Your task to perform on an android device: turn off smart reply in the gmail app Image 0: 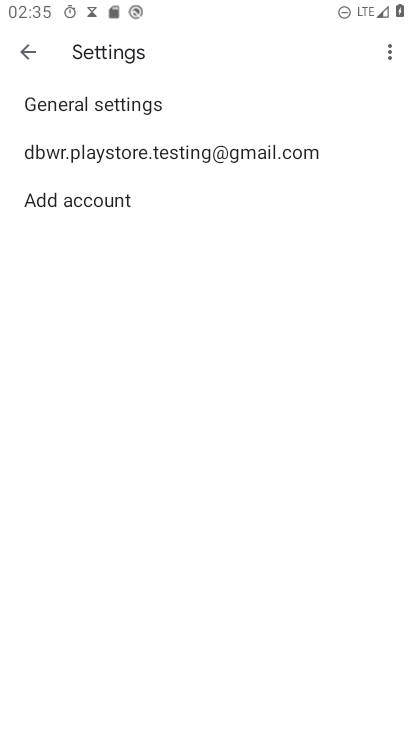
Step 0: press home button
Your task to perform on an android device: turn off smart reply in the gmail app Image 1: 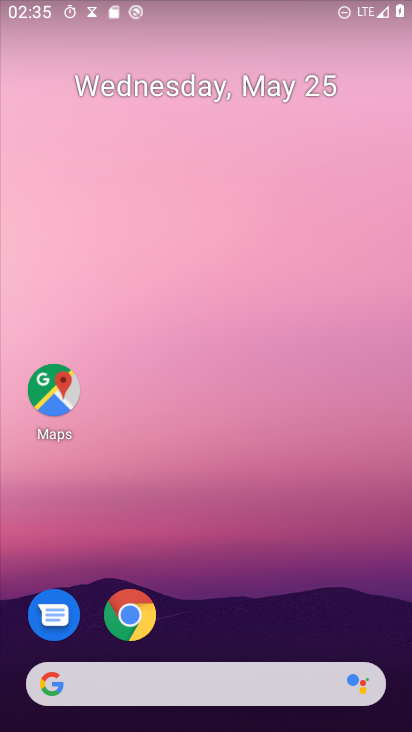
Step 1: drag from (303, 684) to (316, 91)
Your task to perform on an android device: turn off smart reply in the gmail app Image 2: 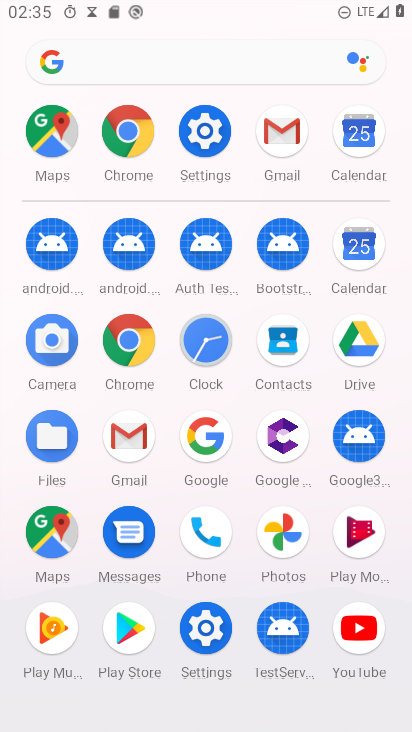
Step 2: click (274, 141)
Your task to perform on an android device: turn off smart reply in the gmail app Image 3: 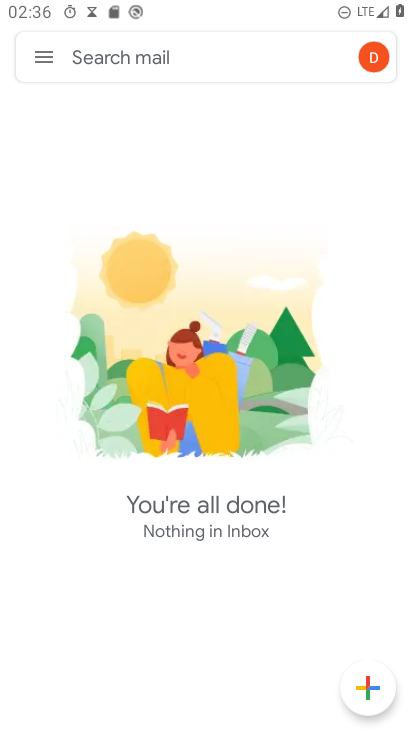
Step 3: click (37, 68)
Your task to perform on an android device: turn off smart reply in the gmail app Image 4: 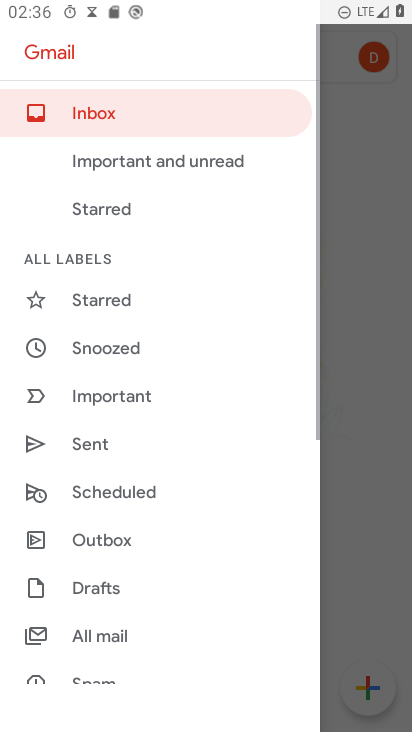
Step 4: drag from (139, 605) to (181, 228)
Your task to perform on an android device: turn off smart reply in the gmail app Image 5: 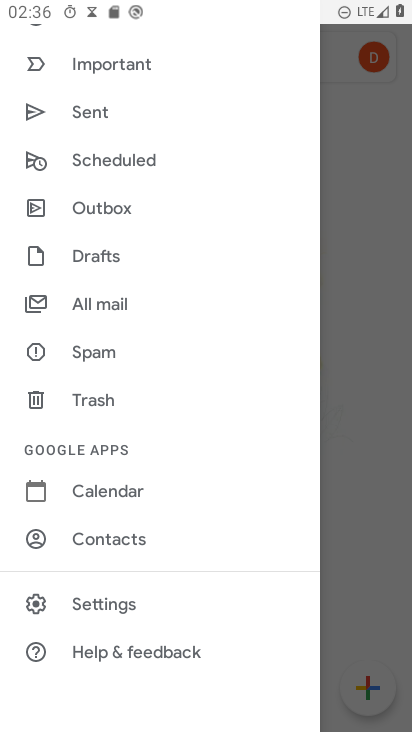
Step 5: click (146, 608)
Your task to perform on an android device: turn off smart reply in the gmail app Image 6: 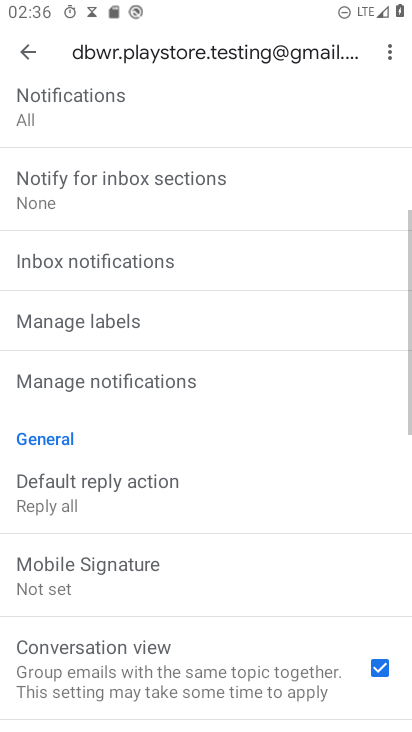
Step 6: drag from (197, 498) to (214, 155)
Your task to perform on an android device: turn off smart reply in the gmail app Image 7: 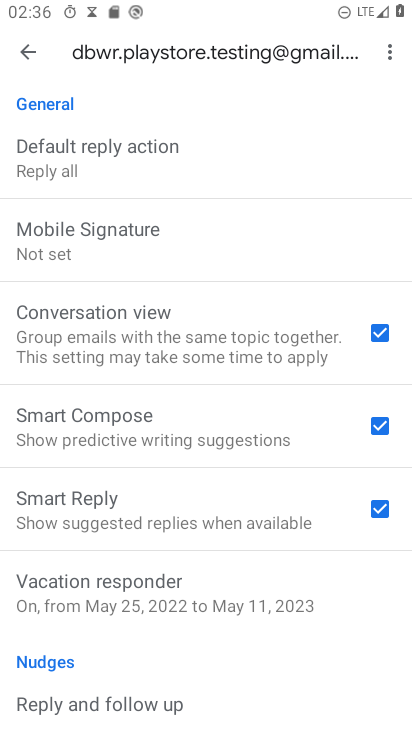
Step 7: drag from (214, 399) to (208, 228)
Your task to perform on an android device: turn off smart reply in the gmail app Image 8: 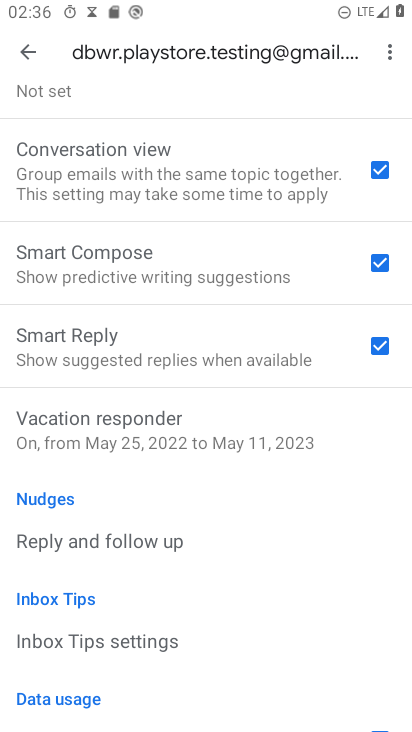
Step 8: click (391, 349)
Your task to perform on an android device: turn off smart reply in the gmail app Image 9: 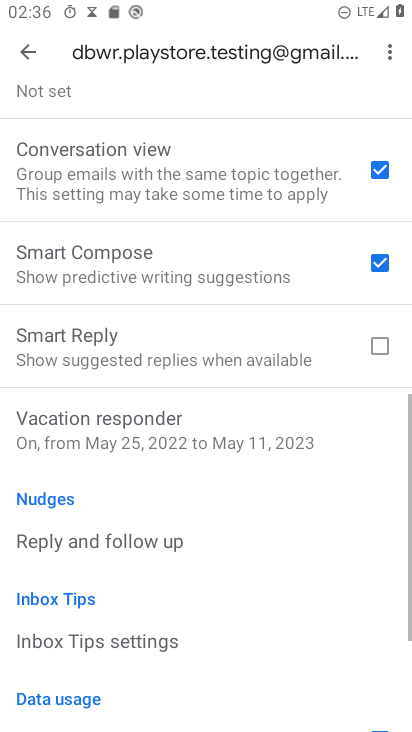
Step 9: task complete